Your task to perform on an android device: open app "Yahoo Mail" (install if not already installed) and enter user name: "lawsuit@inbox.com" and password: "pooch" Image 0: 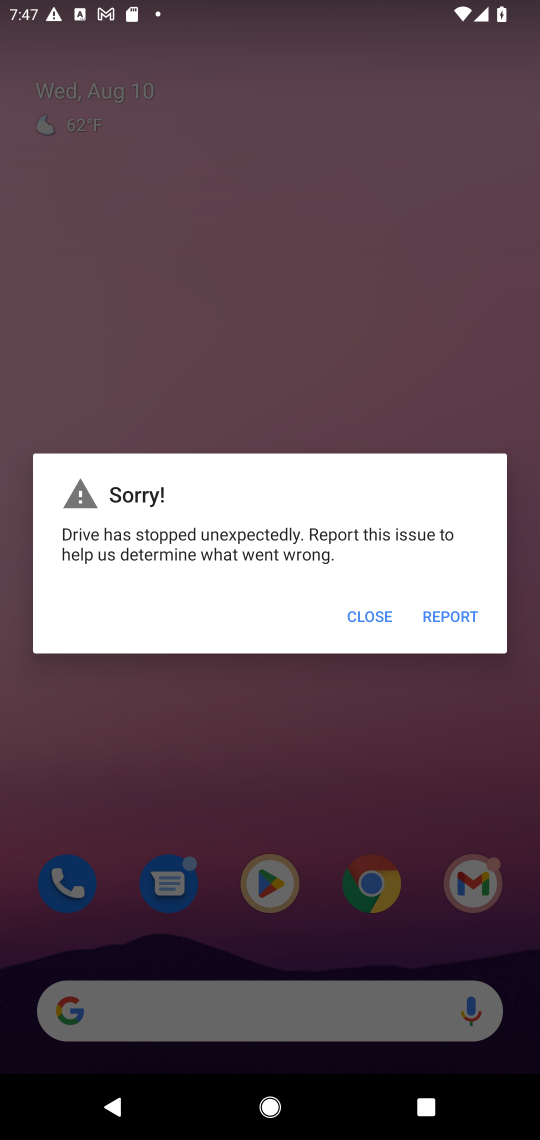
Step 0: click (357, 609)
Your task to perform on an android device: open app "Yahoo Mail" (install if not already installed) and enter user name: "lawsuit@inbox.com" and password: "pooch" Image 1: 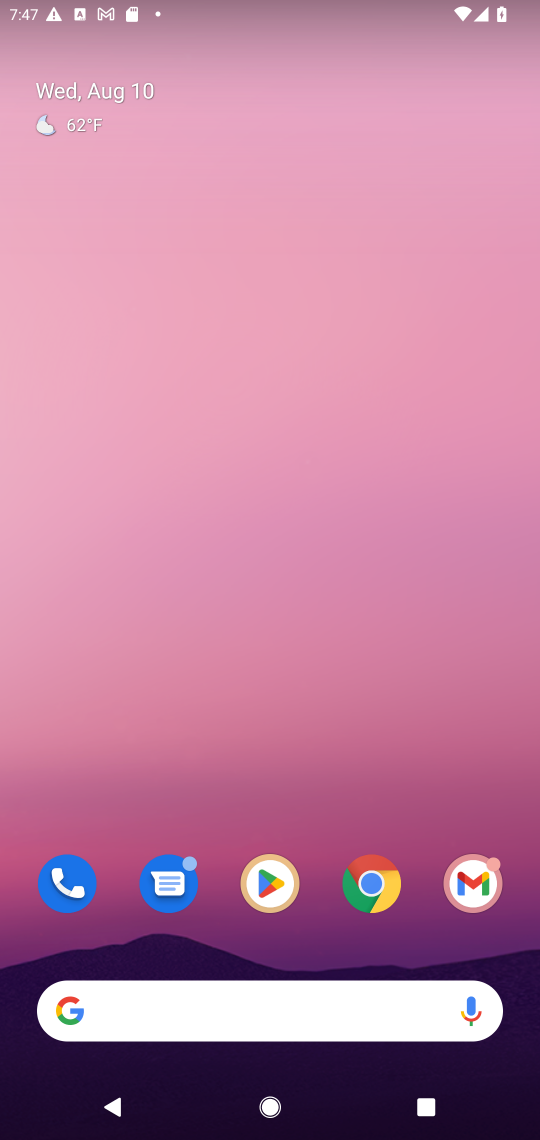
Step 1: click (239, 865)
Your task to perform on an android device: open app "Yahoo Mail" (install if not already installed) and enter user name: "lawsuit@inbox.com" and password: "pooch" Image 2: 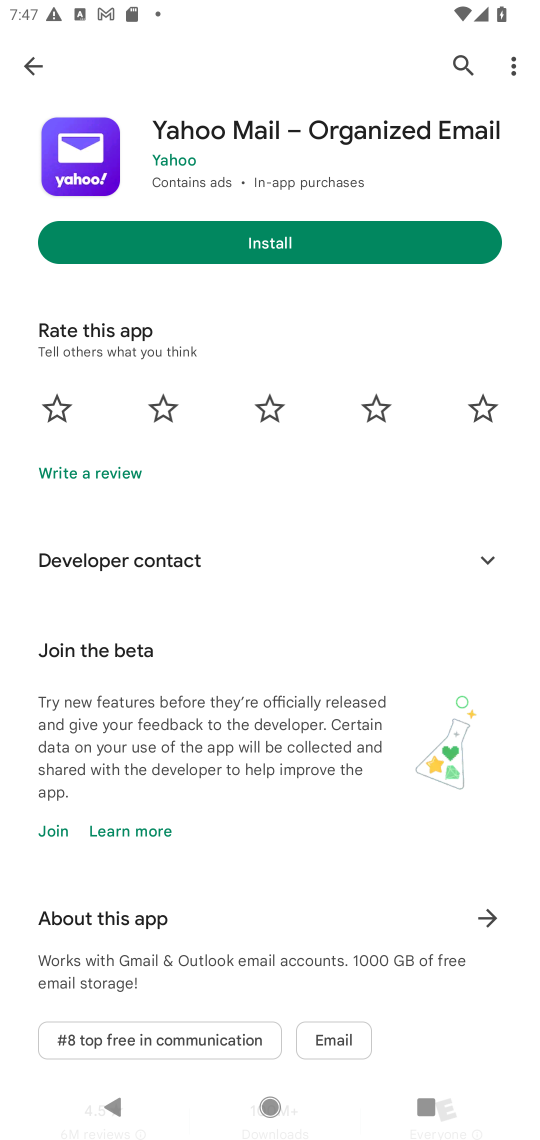
Step 2: click (457, 69)
Your task to perform on an android device: open app "Yahoo Mail" (install if not already installed) and enter user name: "lawsuit@inbox.com" and password: "pooch" Image 3: 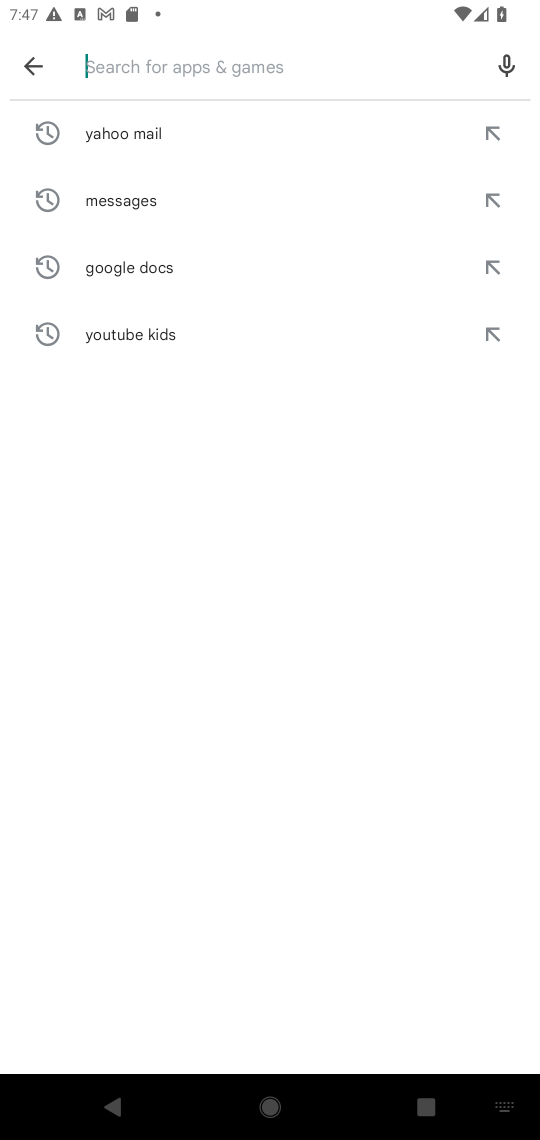
Step 3: type "Yahoo Mai"
Your task to perform on an android device: open app "Yahoo Mail" (install if not already installed) and enter user name: "lawsuit@inbox.com" and password: "pooch" Image 4: 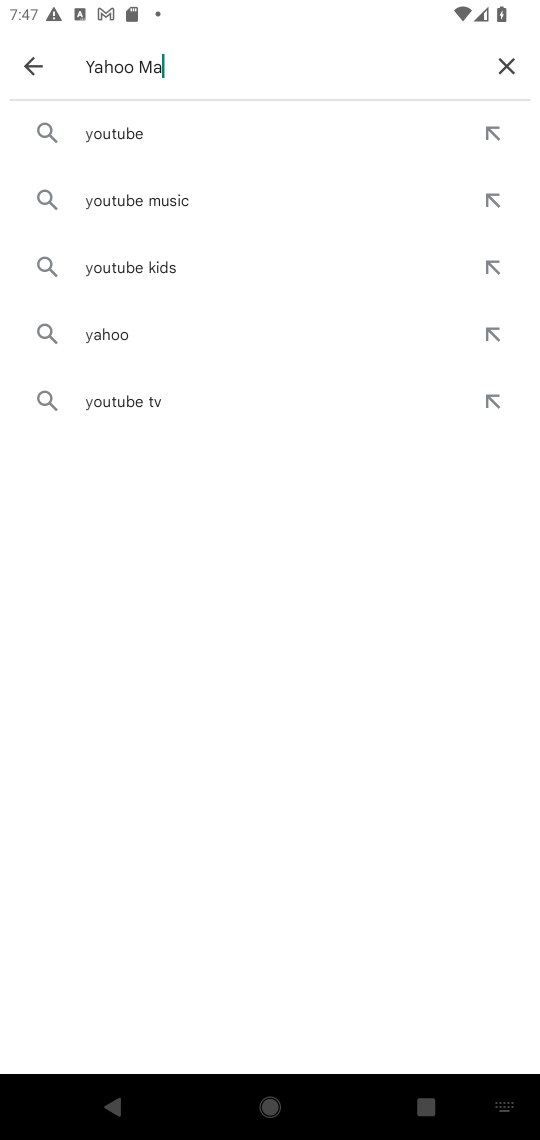
Step 4: type ""
Your task to perform on an android device: open app "Yahoo Mail" (install if not already installed) and enter user name: "lawsuit@inbox.com" and password: "pooch" Image 5: 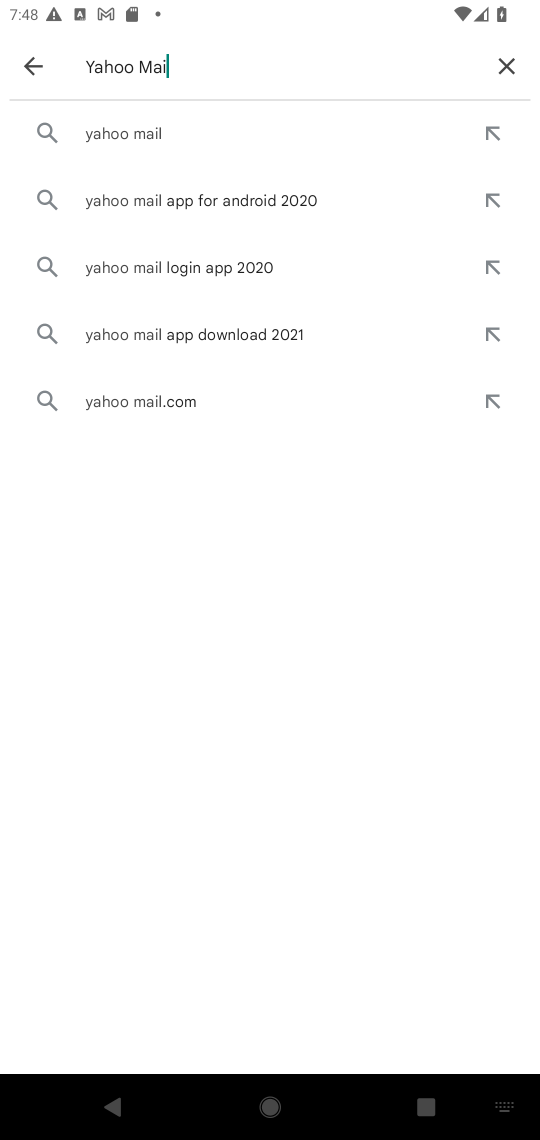
Step 5: click (126, 134)
Your task to perform on an android device: open app "Yahoo Mail" (install if not already installed) and enter user name: "lawsuit@inbox.com" and password: "pooch" Image 6: 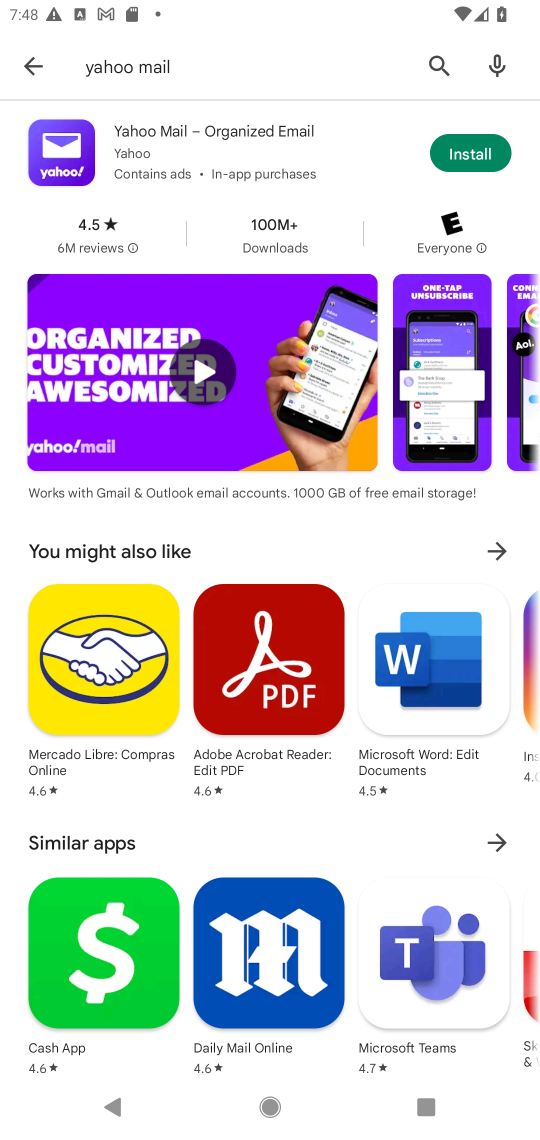
Step 6: click (463, 161)
Your task to perform on an android device: open app "Yahoo Mail" (install if not already installed) and enter user name: "lawsuit@inbox.com" and password: "pooch" Image 7: 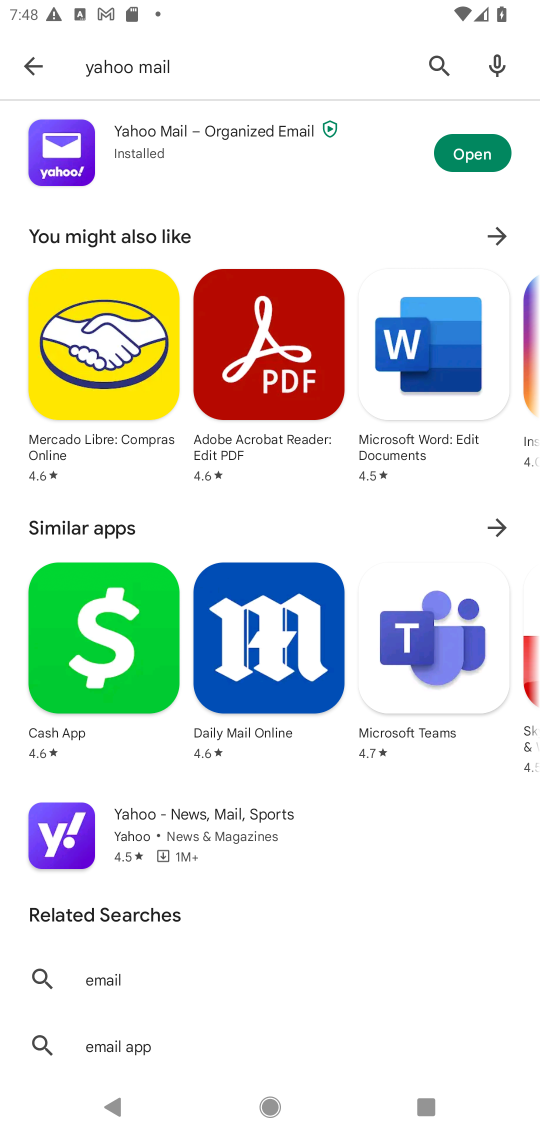
Step 7: click (456, 171)
Your task to perform on an android device: open app "Yahoo Mail" (install if not already installed) and enter user name: "lawsuit@inbox.com" and password: "pooch" Image 8: 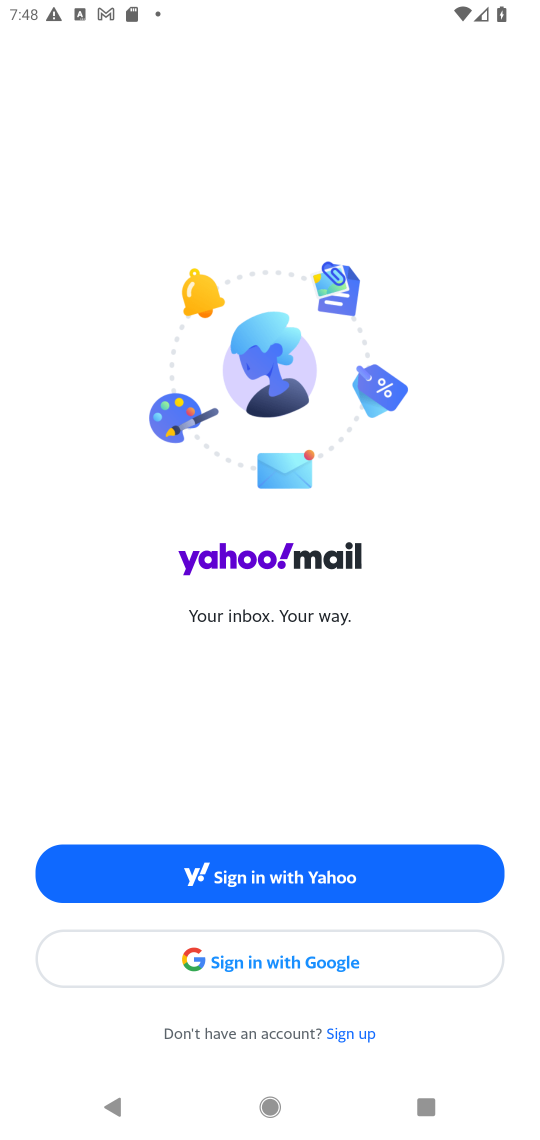
Step 8: task complete